Your task to perform on an android device: toggle data saver in the chrome app Image 0: 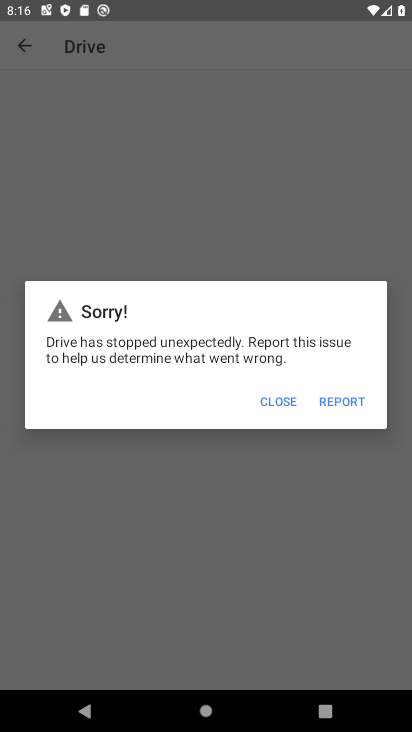
Step 0: press home button
Your task to perform on an android device: toggle data saver in the chrome app Image 1: 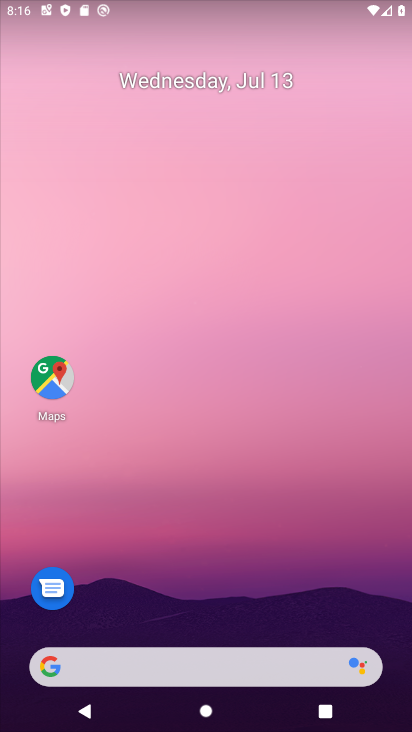
Step 1: drag from (269, 681) to (363, 508)
Your task to perform on an android device: toggle data saver in the chrome app Image 2: 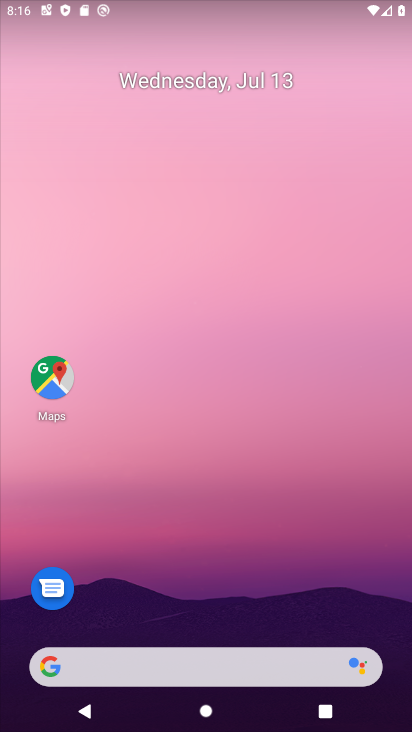
Step 2: click (133, 536)
Your task to perform on an android device: toggle data saver in the chrome app Image 3: 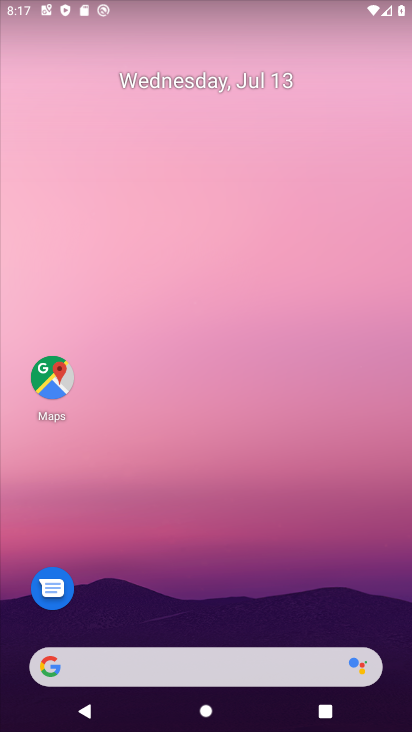
Step 3: drag from (240, 710) to (251, 4)
Your task to perform on an android device: toggle data saver in the chrome app Image 4: 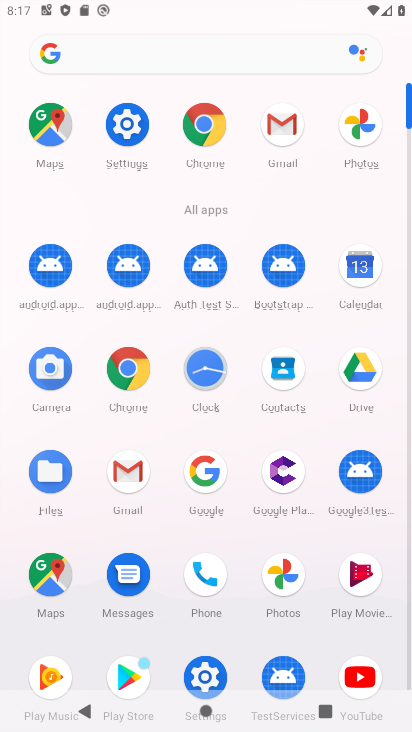
Step 4: click (146, 371)
Your task to perform on an android device: toggle data saver in the chrome app Image 5: 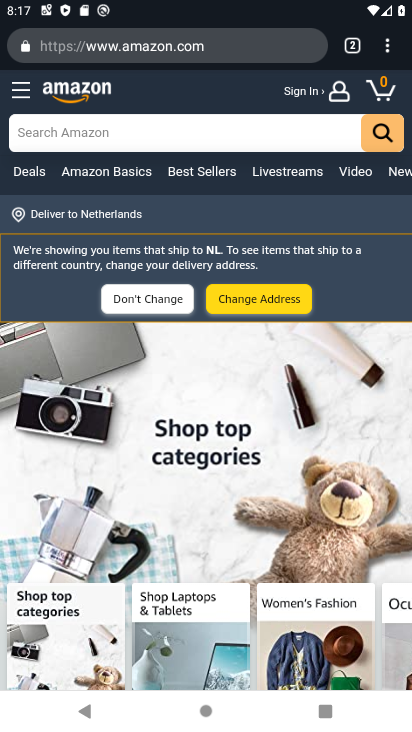
Step 5: click (381, 42)
Your task to perform on an android device: toggle data saver in the chrome app Image 6: 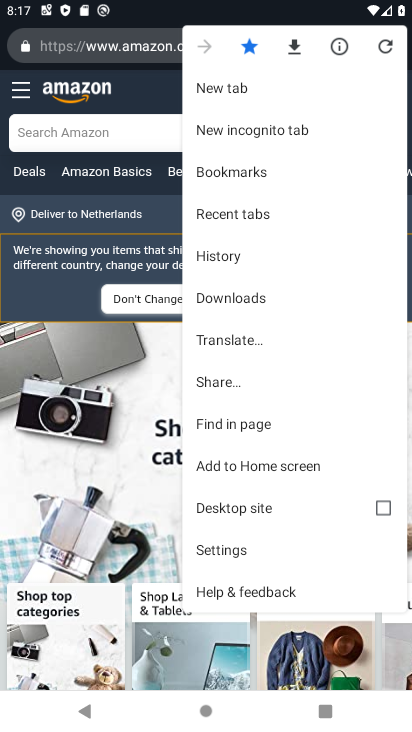
Step 6: click (256, 551)
Your task to perform on an android device: toggle data saver in the chrome app Image 7: 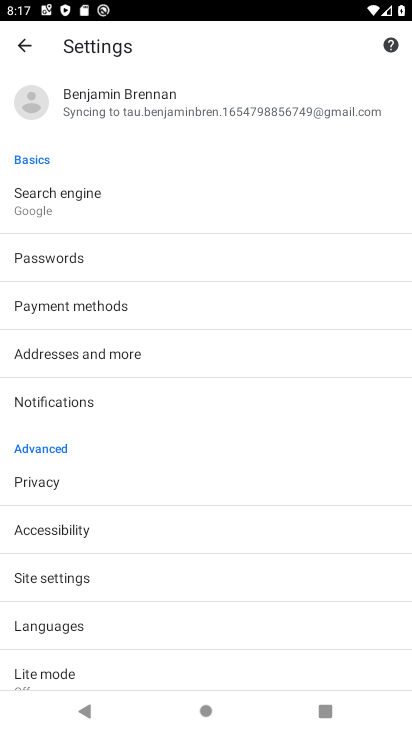
Step 7: click (64, 676)
Your task to perform on an android device: toggle data saver in the chrome app Image 8: 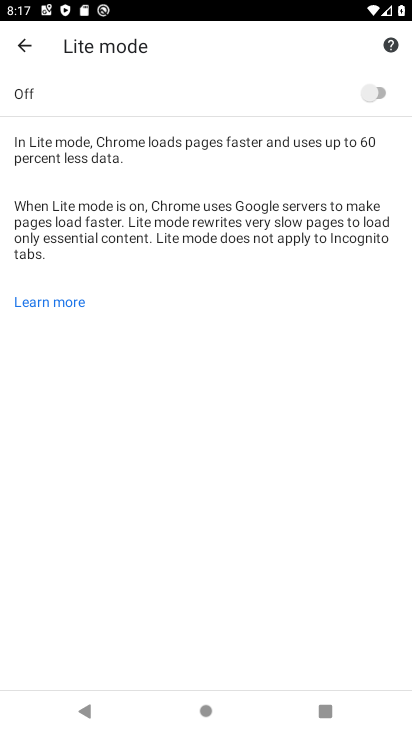
Step 8: click (380, 93)
Your task to perform on an android device: toggle data saver in the chrome app Image 9: 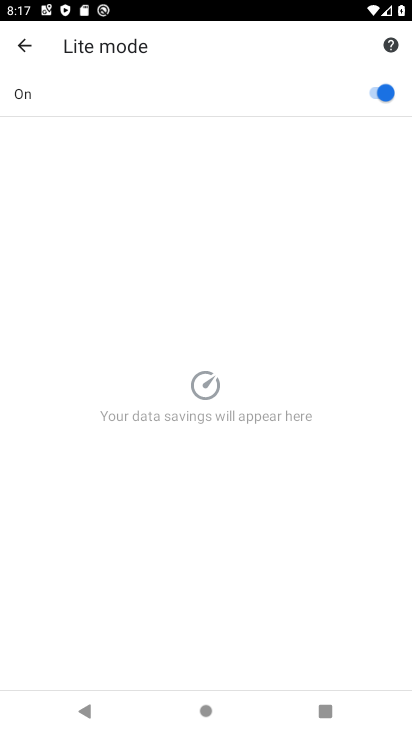
Step 9: task complete